Your task to perform on an android device: What's the weather today? Image 0: 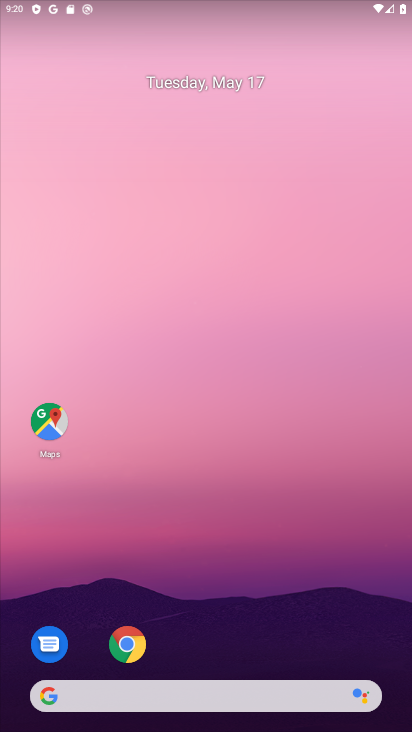
Step 0: click (181, 700)
Your task to perform on an android device: What's the weather today? Image 1: 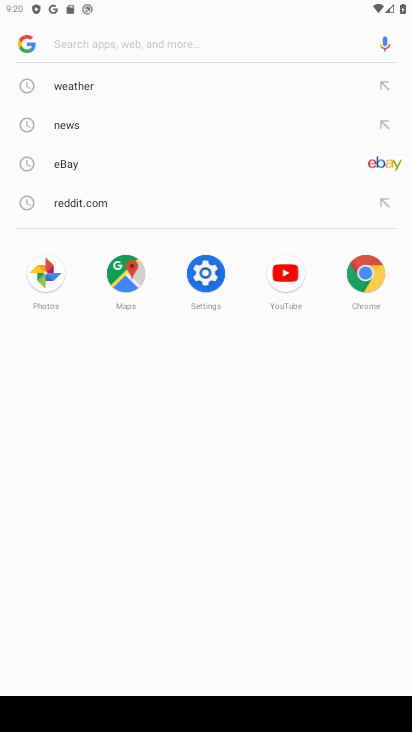
Step 1: click (76, 81)
Your task to perform on an android device: What's the weather today? Image 2: 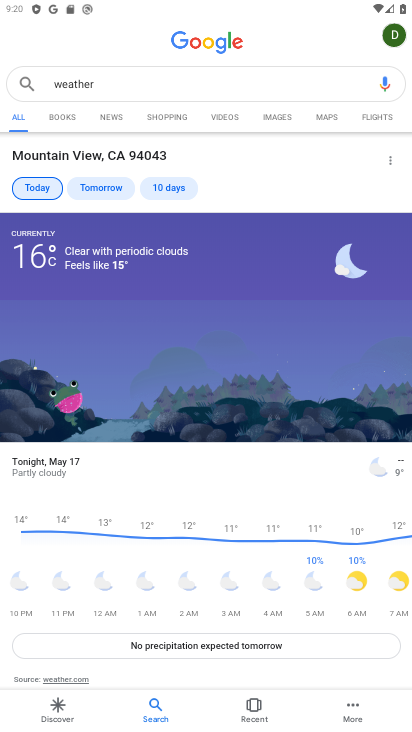
Step 2: task complete